Your task to perform on an android device: Open Chrome and go to the settings page Image 0: 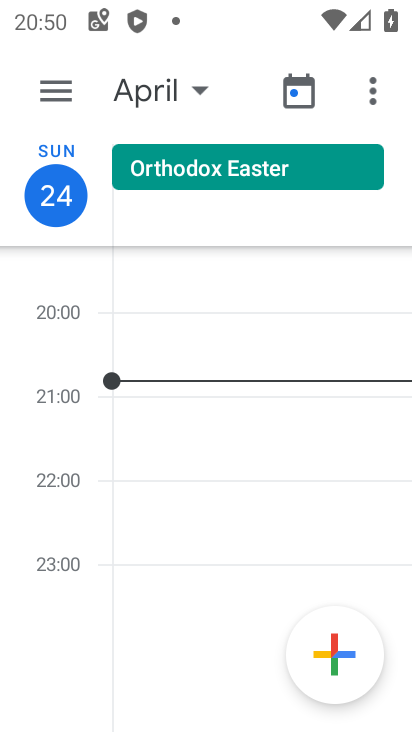
Step 0: press home button
Your task to perform on an android device: Open Chrome and go to the settings page Image 1: 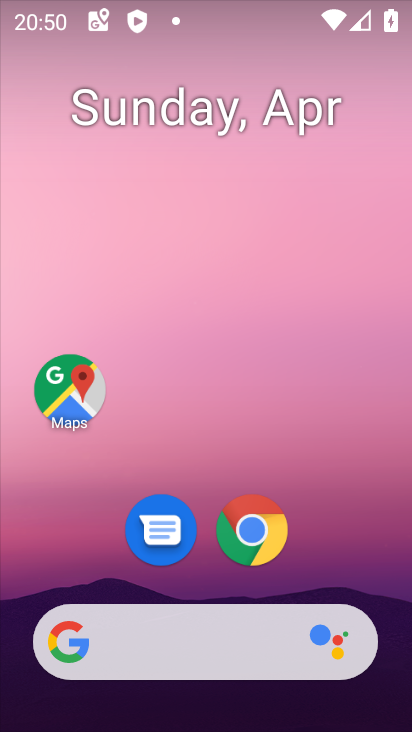
Step 1: click (267, 542)
Your task to perform on an android device: Open Chrome and go to the settings page Image 2: 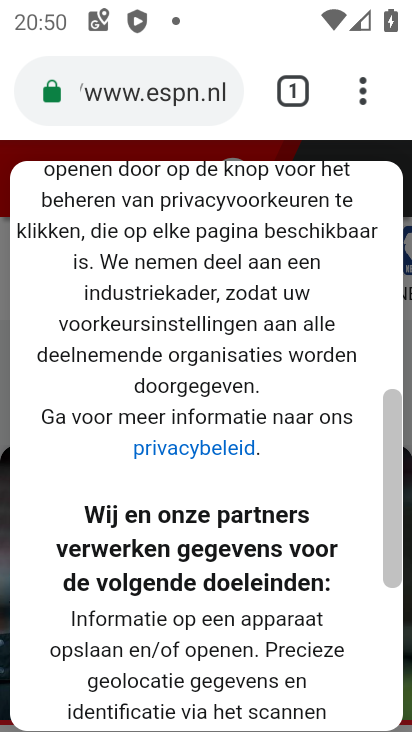
Step 2: click (356, 85)
Your task to perform on an android device: Open Chrome and go to the settings page Image 3: 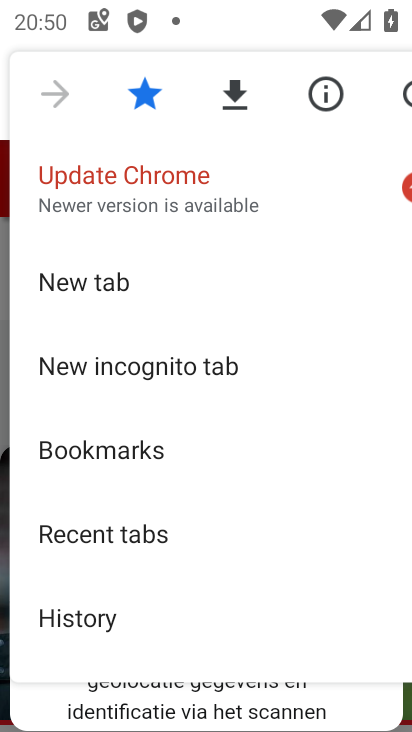
Step 3: drag from (166, 563) to (264, 196)
Your task to perform on an android device: Open Chrome and go to the settings page Image 4: 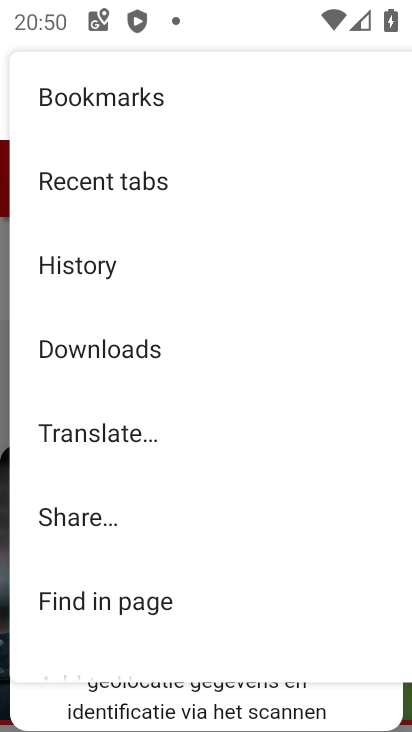
Step 4: drag from (143, 573) to (204, 226)
Your task to perform on an android device: Open Chrome and go to the settings page Image 5: 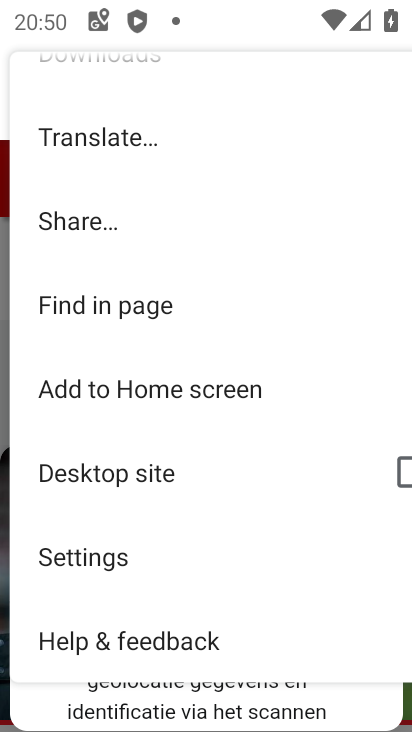
Step 5: click (130, 564)
Your task to perform on an android device: Open Chrome and go to the settings page Image 6: 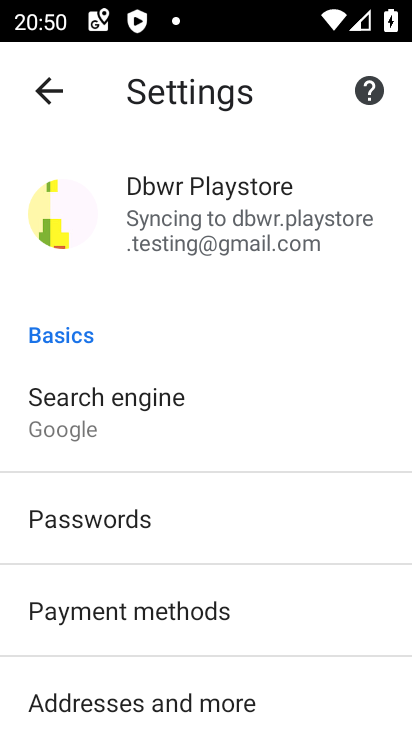
Step 6: task complete